Your task to perform on an android device: open wifi settings Image 0: 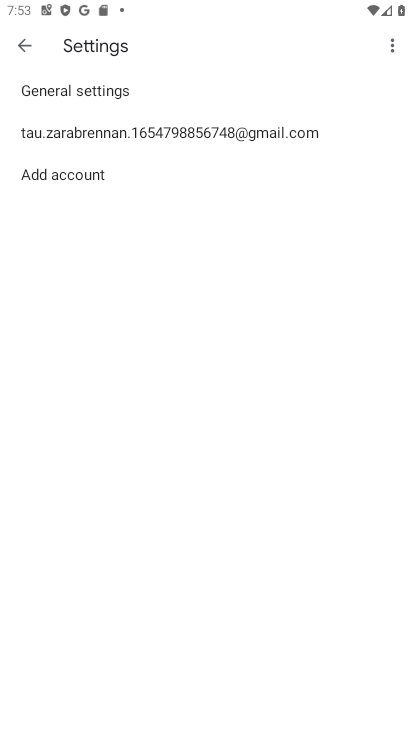
Step 0: press home button
Your task to perform on an android device: open wifi settings Image 1: 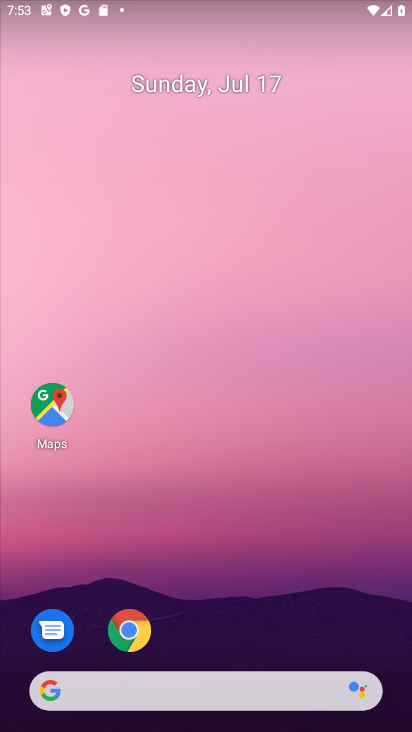
Step 1: drag from (195, 391) to (249, 63)
Your task to perform on an android device: open wifi settings Image 2: 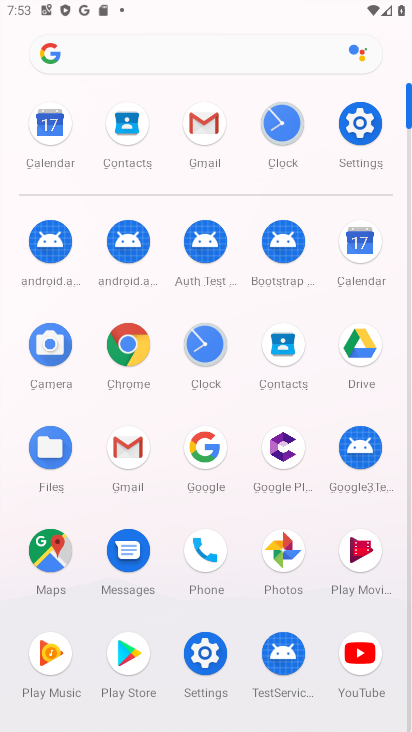
Step 2: click (347, 123)
Your task to perform on an android device: open wifi settings Image 3: 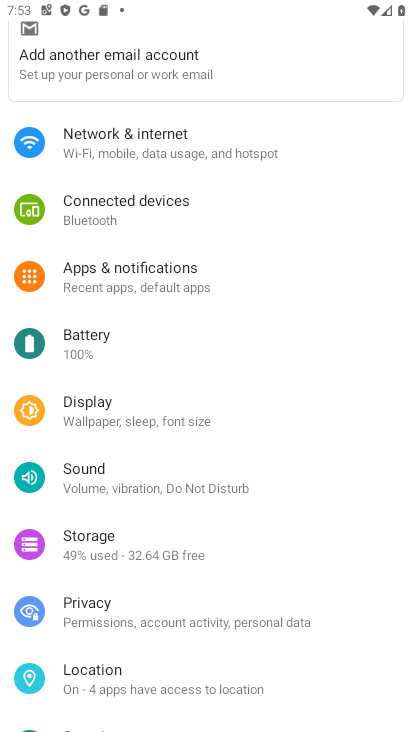
Step 3: click (138, 171)
Your task to perform on an android device: open wifi settings Image 4: 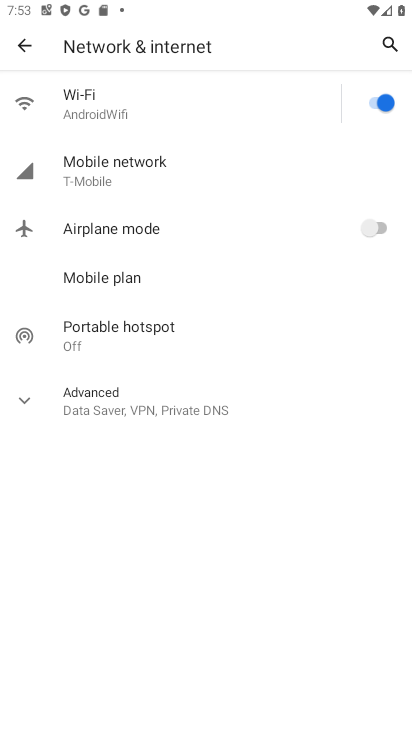
Step 4: click (184, 111)
Your task to perform on an android device: open wifi settings Image 5: 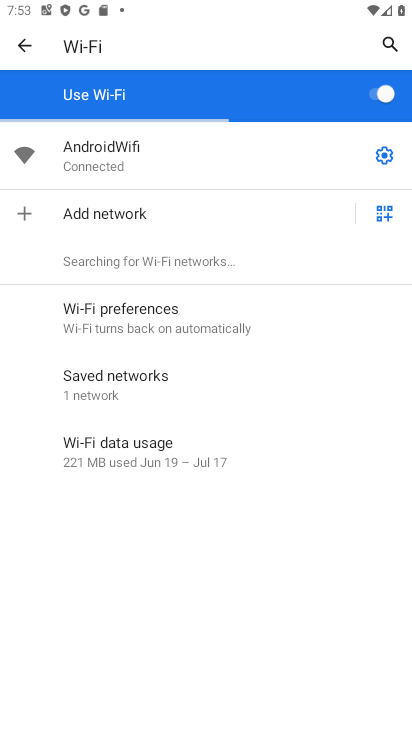
Step 5: task complete